Your task to perform on an android device: Go to ESPN.com Image 0: 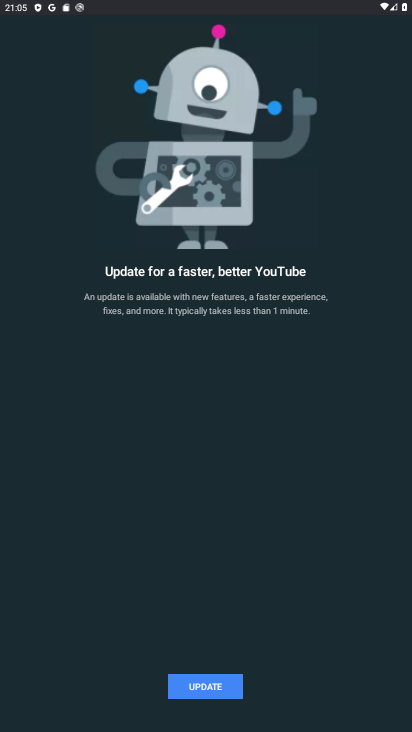
Step 0: press home button
Your task to perform on an android device: Go to ESPN.com Image 1: 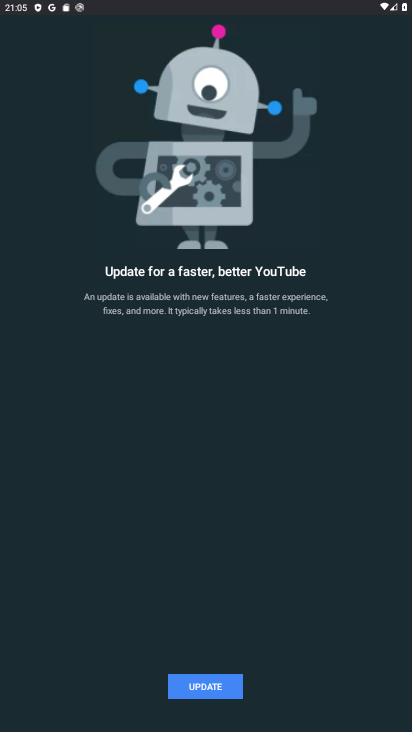
Step 1: press home button
Your task to perform on an android device: Go to ESPN.com Image 2: 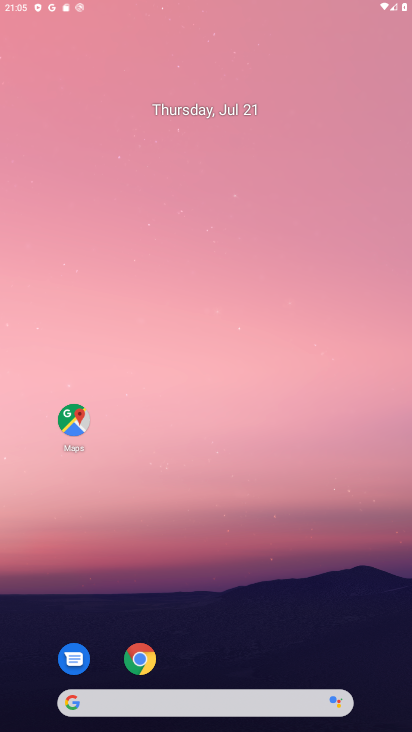
Step 2: press home button
Your task to perform on an android device: Go to ESPN.com Image 3: 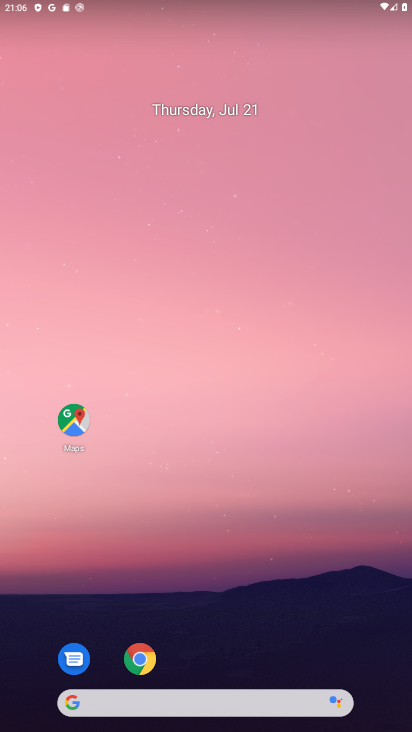
Step 3: click (145, 643)
Your task to perform on an android device: Go to ESPN.com Image 4: 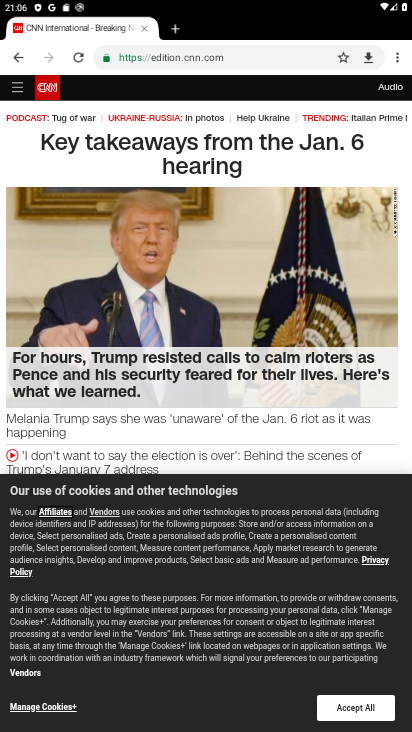
Step 4: click (210, 51)
Your task to perform on an android device: Go to ESPN.com Image 5: 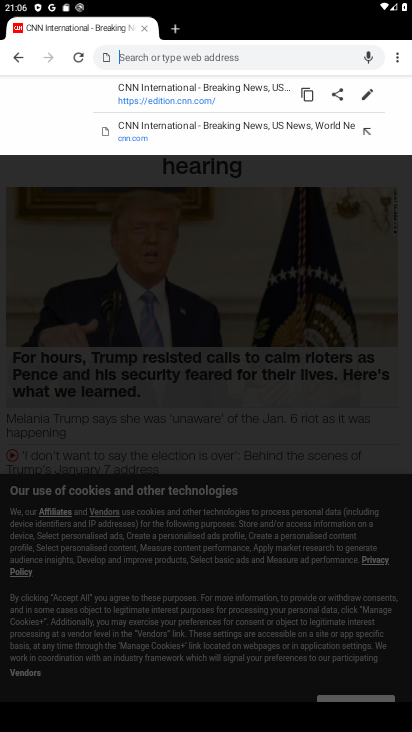
Step 5: type "ESPN>com"
Your task to perform on an android device: Go to ESPN.com Image 6: 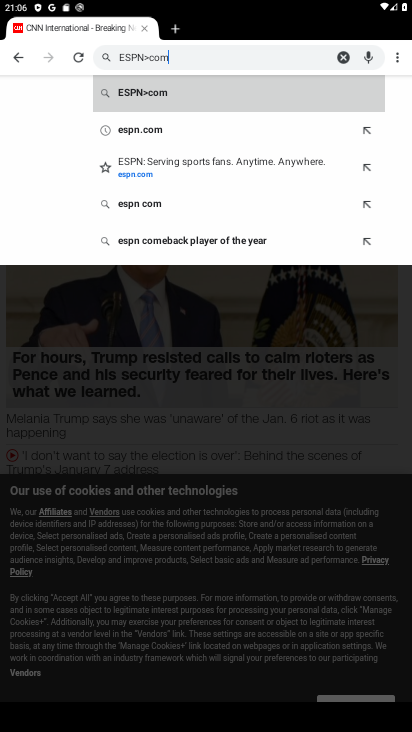
Step 6: click (150, 153)
Your task to perform on an android device: Go to ESPN.com Image 7: 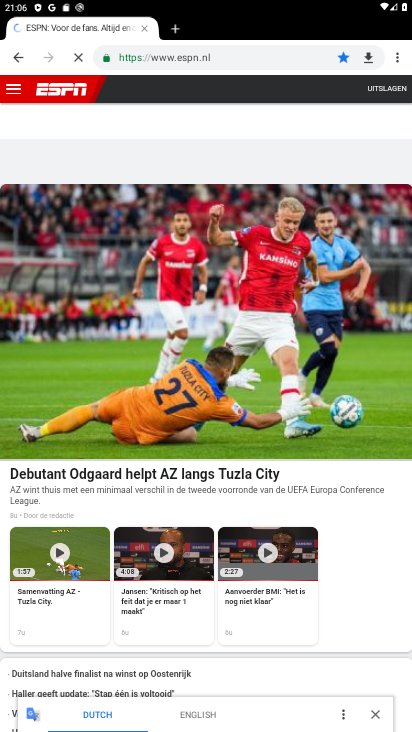
Step 7: task complete